Your task to perform on an android device: toggle javascript in the chrome app Image 0: 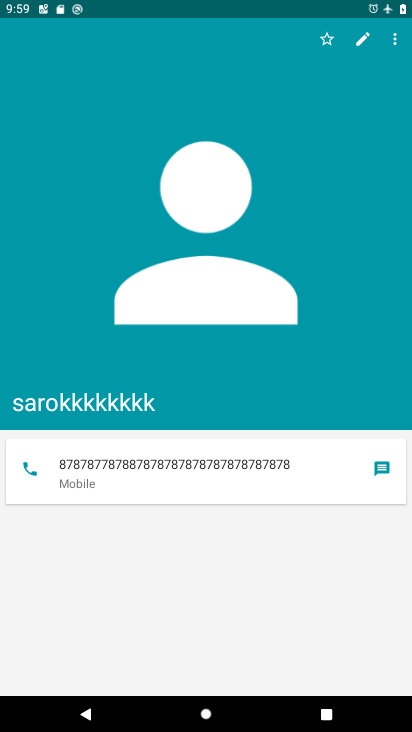
Step 0: press home button
Your task to perform on an android device: toggle javascript in the chrome app Image 1: 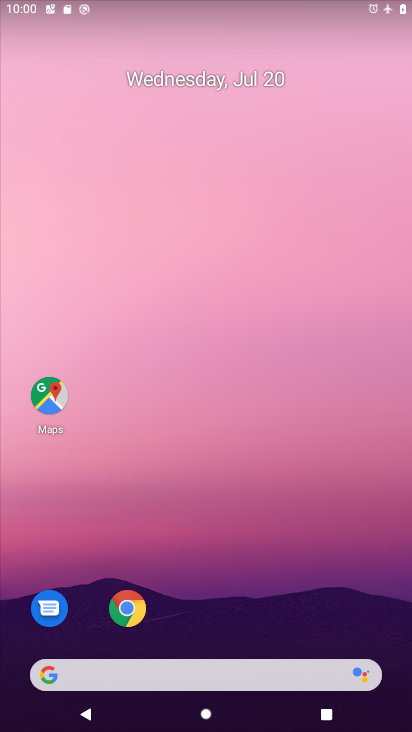
Step 1: drag from (276, 623) to (341, 112)
Your task to perform on an android device: toggle javascript in the chrome app Image 2: 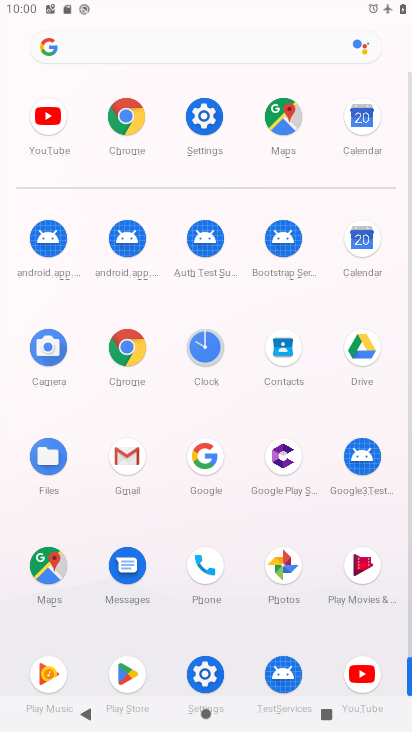
Step 2: click (138, 106)
Your task to perform on an android device: toggle javascript in the chrome app Image 3: 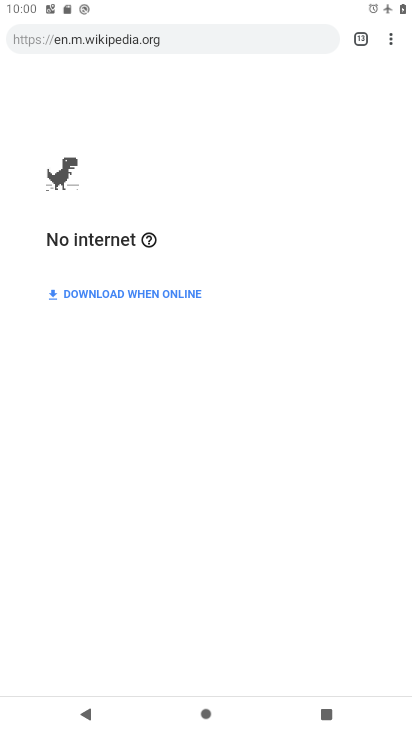
Step 3: click (393, 40)
Your task to perform on an android device: toggle javascript in the chrome app Image 4: 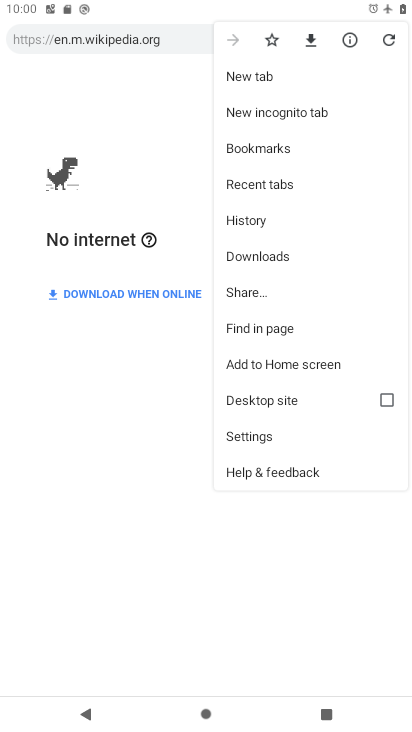
Step 4: click (251, 433)
Your task to perform on an android device: toggle javascript in the chrome app Image 5: 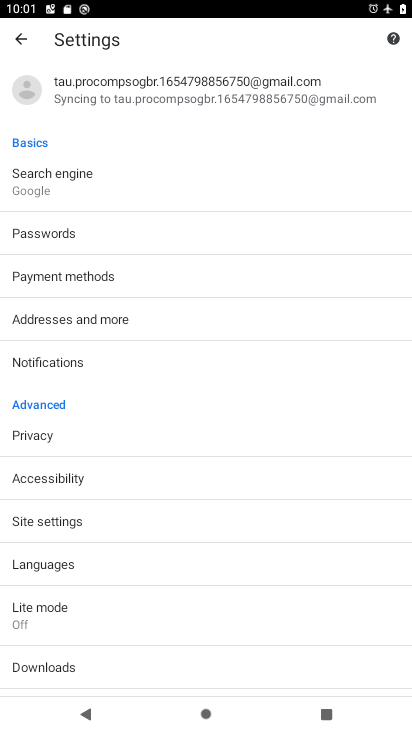
Step 5: click (118, 515)
Your task to perform on an android device: toggle javascript in the chrome app Image 6: 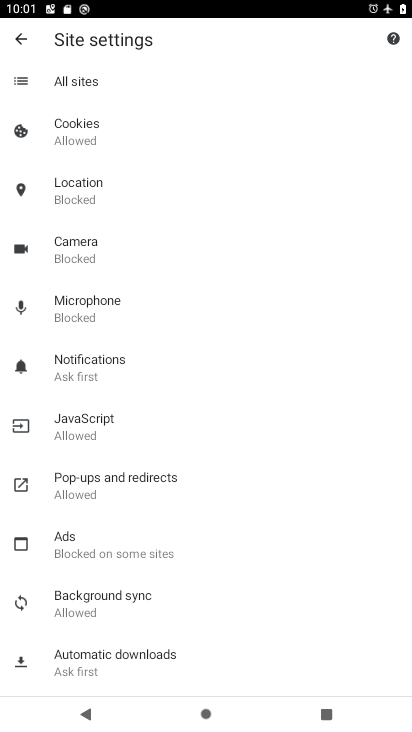
Step 6: click (135, 432)
Your task to perform on an android device: toggle javascript in the chrome app Image 7: 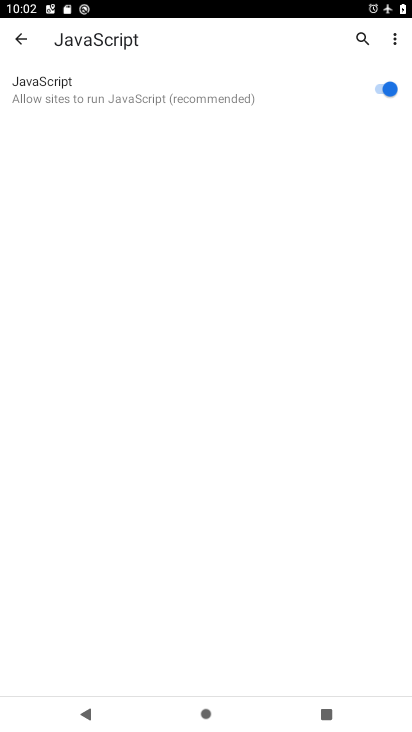
Step 7: click (378, 96)
Your task to perform on an android device: toggle javascript in the chrome app Image 8: 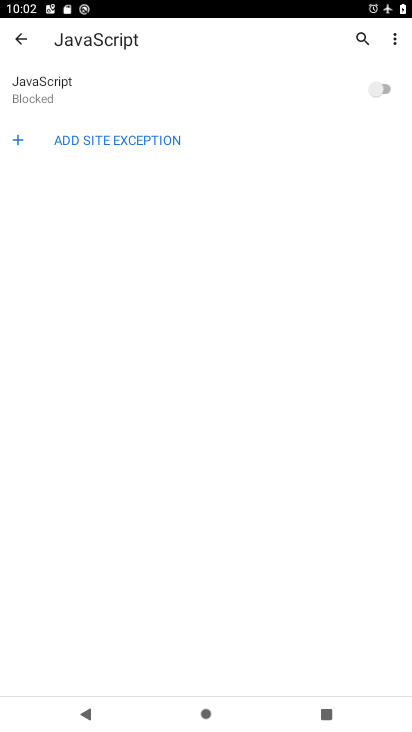
Step 8: task complete